Your task to perform on an android device: open app "Adobe Express: Graphic Design" (install if not already installed) Image 0: 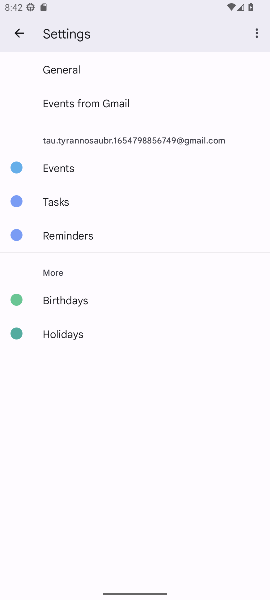
Step 0: press home button
Your task to perform on an android device: open app "Adobe Express: Graphic Design" (install if not already installed) Image 1: 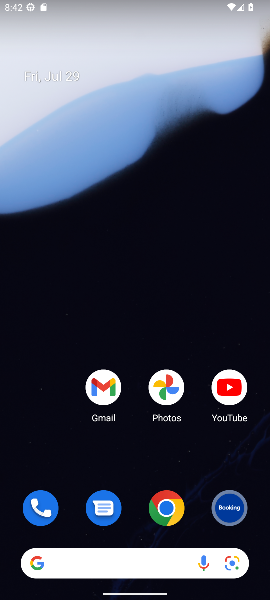
Step 1: drag from (142, 446) to (161, 21)
Your task to perform on an android device: open app "Adobe Express: Graphic Design" (install if not already installed) Image 2: 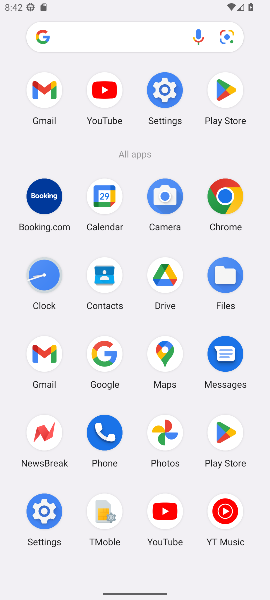
Step 2: click (223, 85)
Your task to perform on an android device: open app "Adobe Express: Graphic Design" (install if not already installed) Image 3: 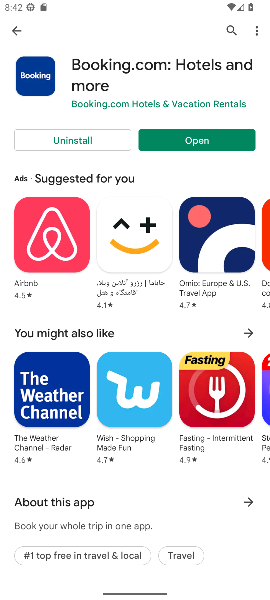
Step 3: click (231, 34)
Your task to perform on an android device: open app "Adobe Express: Graphic Design" (install if not already installed) Image 4: 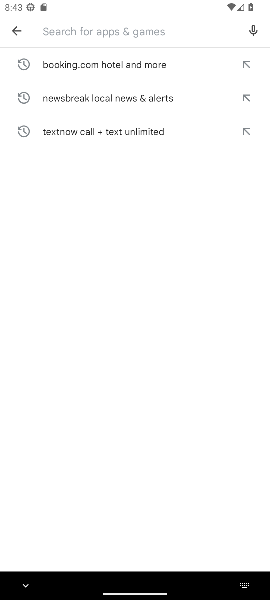
Step 4: type "Adobe Express: Graphic Design"
Your task to perform on an android device: open app "Adobe Express: Graphic Design" (install if not already installed) Image 5: 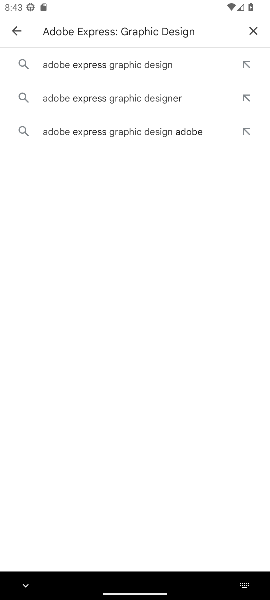
Step 5: click (80, 75)
Your task to perform on an android device: open app "Adobe Express: Graphic Design" (install if not already installed) Image 6: 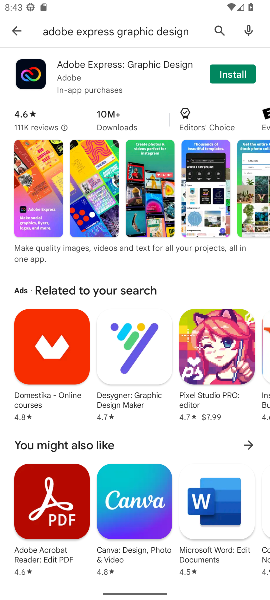
Step 6: click (109, 63)
Your task to perform on an android device: open app "Adobe Express: Graphic Design" (install if not already installed) Image 7: 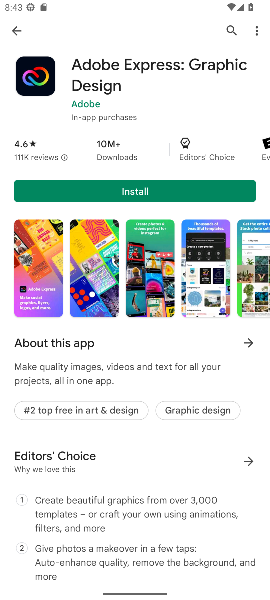
Step 7: click (186, 182)
Your task to perform on an android device: open app "Adobe Express: Graphic Design" (install if not already installed) Image 8: 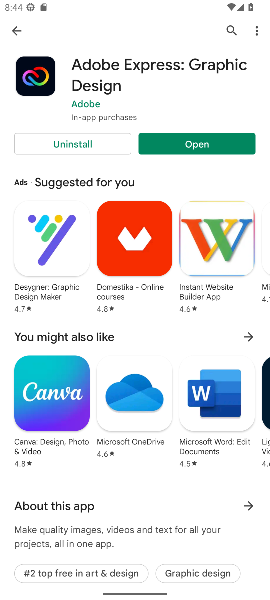
Step 8: click (220, 141)
Your task to perform on an android device: open app "Adobe Express: Graphic Design" (install if not already installed) Image 9: 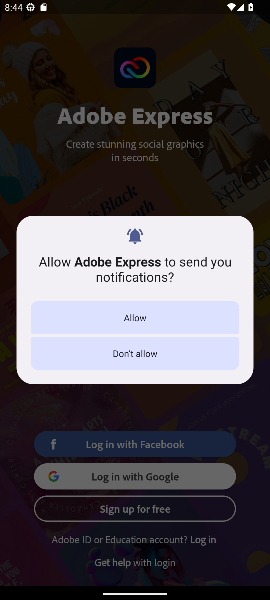
Step 9: task complete